Your task to perform on an android device: Go to Amazon Image 0: 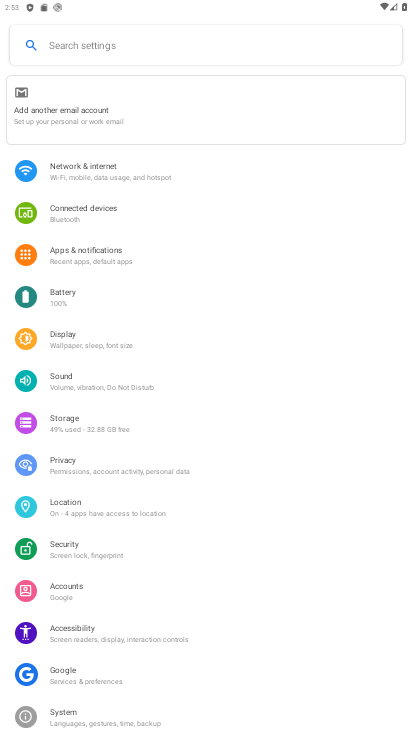
Step 0: press home button
Your task to perform on an android device: Go to Amazon Image 1: 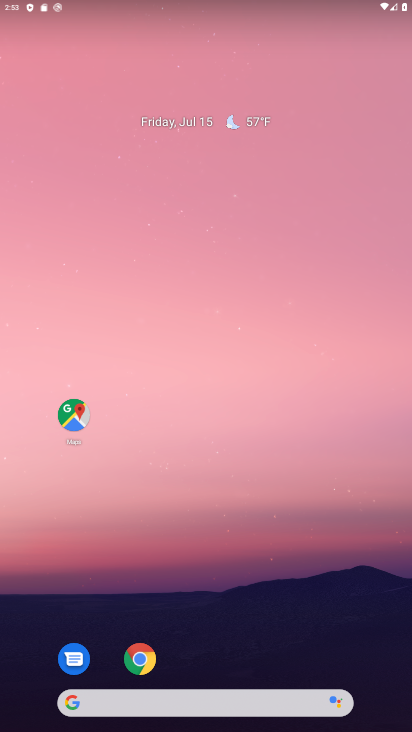
Step 1: click (140, 663)
Your task to perform on an android device: Go to Amazon Image 2: 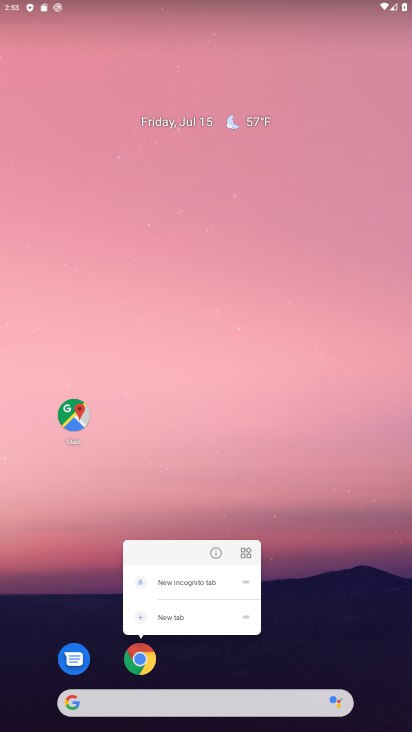
Step 2: click (146, 664)
Your task to perform on an android device: Go to Amazon Image 3: 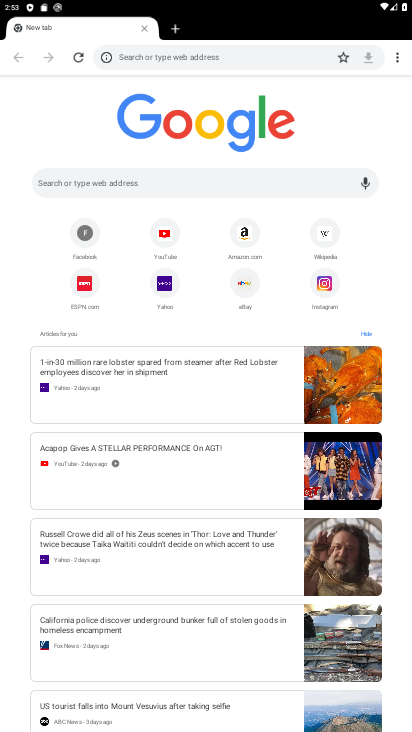
Step 3: click (242, 239)
Your task to perform on an android device: Go to Amazon Image 4: 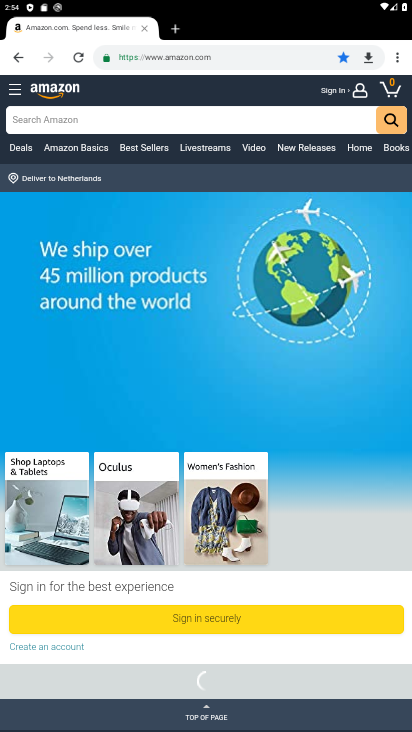
Step 4: task complete